Your task to perform on an android device: Go to eBay Image 0: 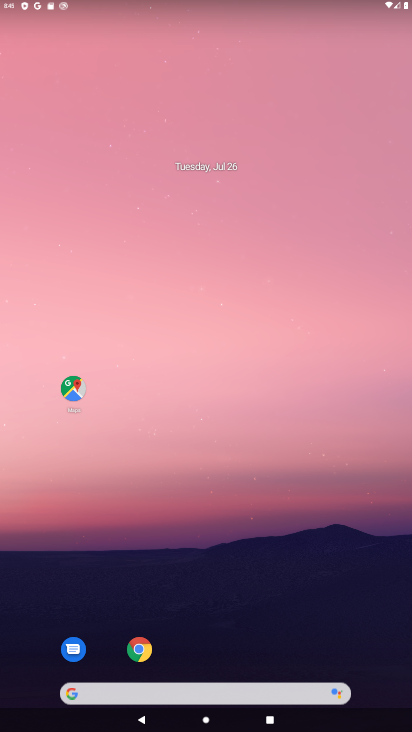
Step 0: click (142, 653)
Your task to perform on an android device: Go to eBay Image 1: 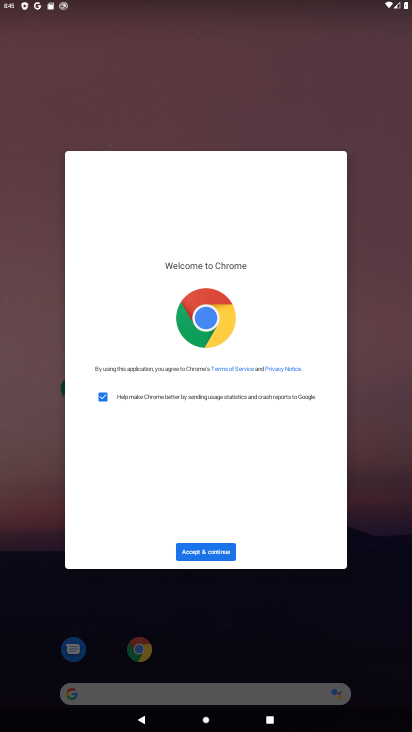
Step 1: click (223, 556)
Your task to perform on an android device: Go to eBay Image 2: 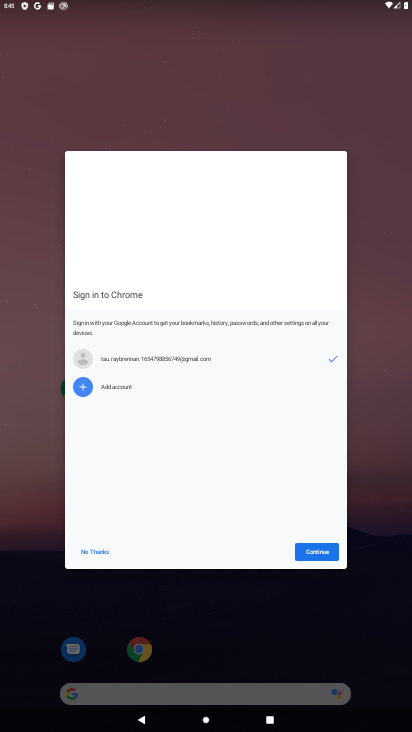
Step 2: click (310, 546)
Your task to perform on an android device: Go to eBay Image 3: 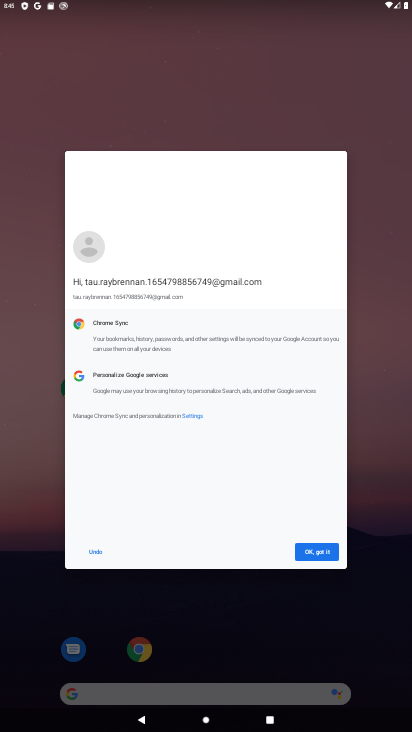
Step 3: click (312, 545)
Your task to perform on an android device: Go to eBay Image 4: 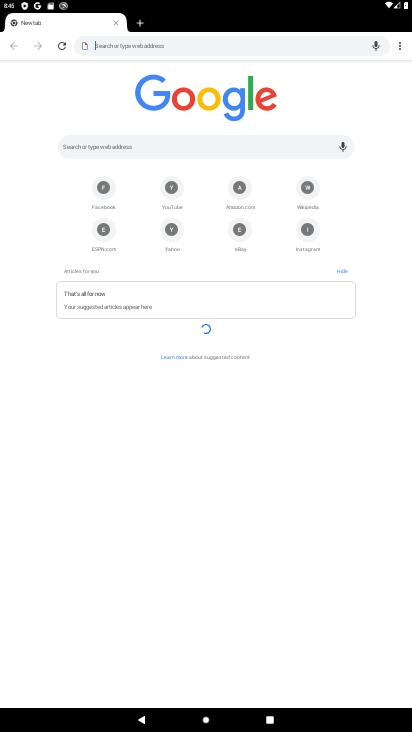
Step 4: click (239, 246)
Your task to perform on an android device: Go to eBay Image 5: 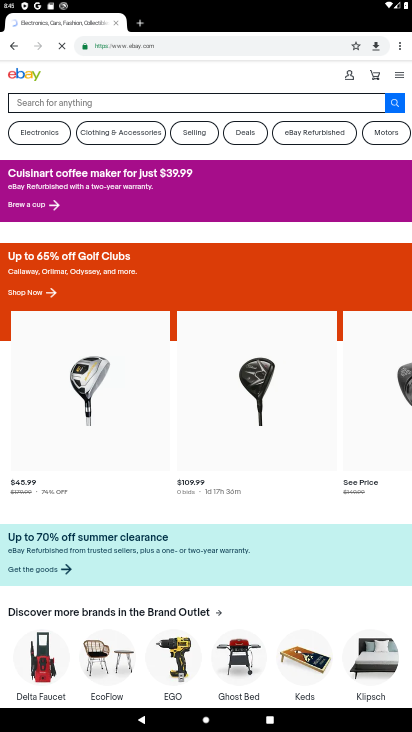
Step 5: task complete